Your task to perform on an android device: change timer sound Image 0: 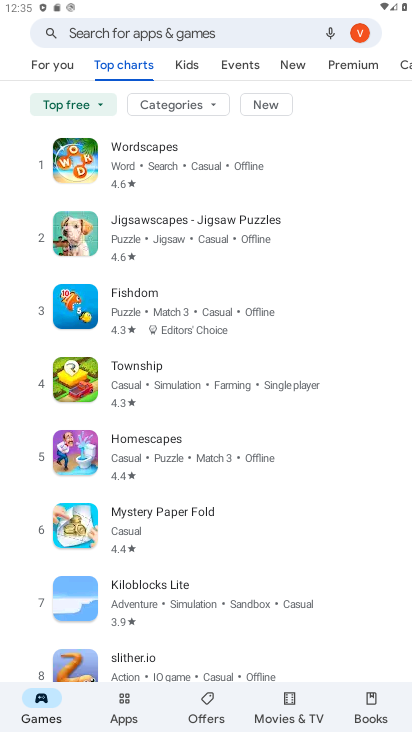
Step 0: press home button
Your task to perform on an android device: change timer sound Image 1: 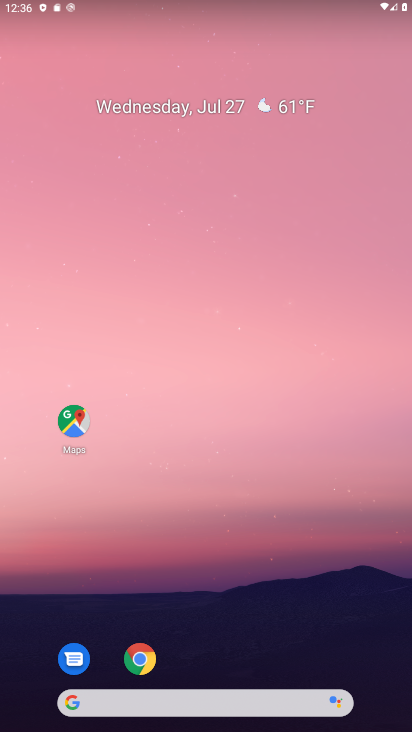
Step 1: drag from (212, 640) to (264, 107)
Your task to perform on an android device: change timer sound Image 2: 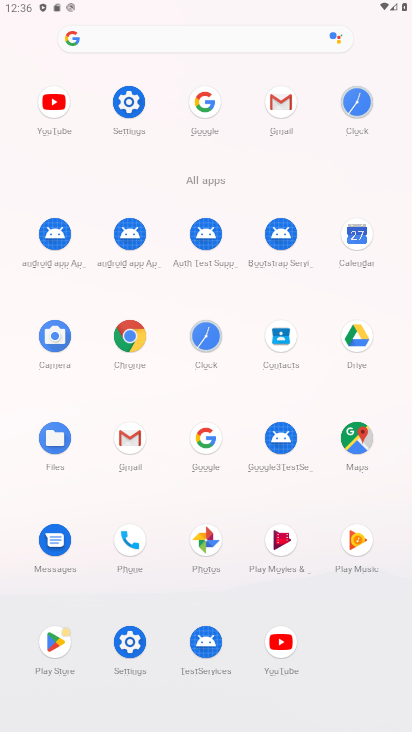
Step 2: click (375, 123)
Your task to perform on an android device: change timer sound Image 3: 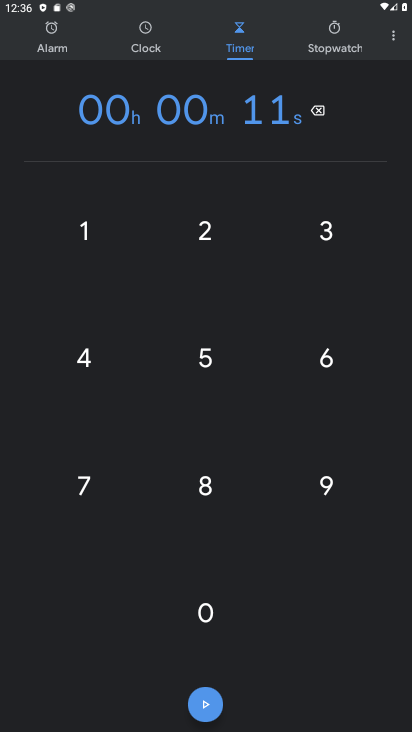
Step 3: click (395, 27)
Your task to perform on an android device: change timer sound Image 4: 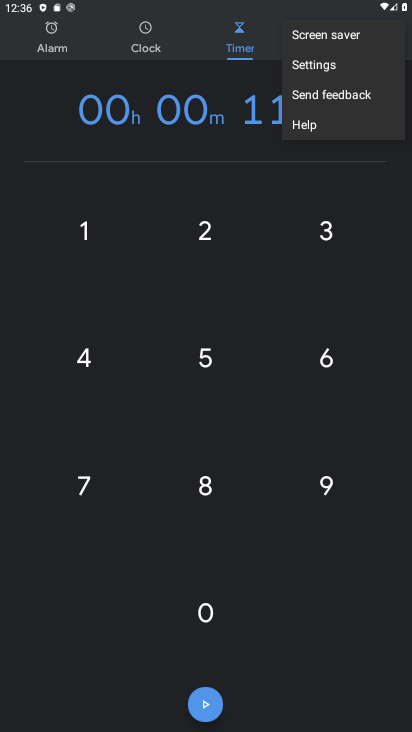
Step 4: click (307, 64)
Your task to perform on an android device: change timer sound Image 5: 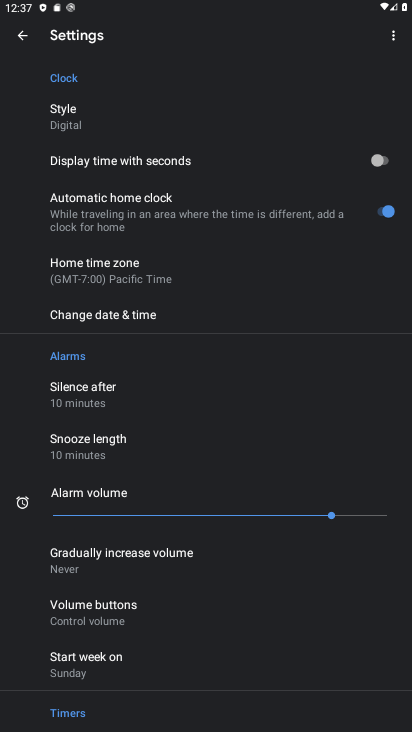
Step 5: drag from (161, 504) to (230, 164)
Your task to perform on an android device: change timer sound Image 6: 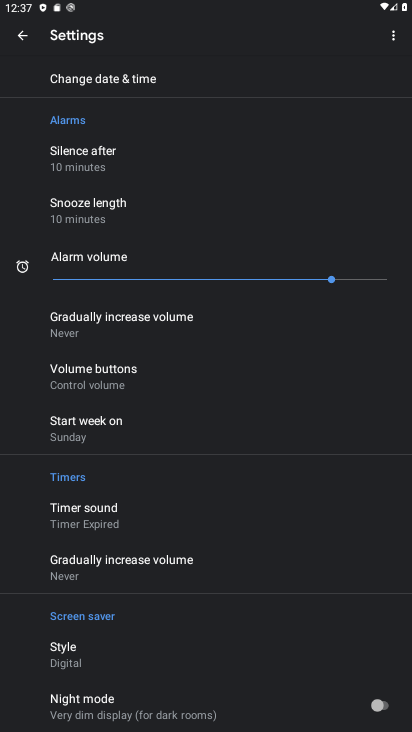
Step 6: click (135, 503)
Your task to perform on an android device: change timer sound Image 7: 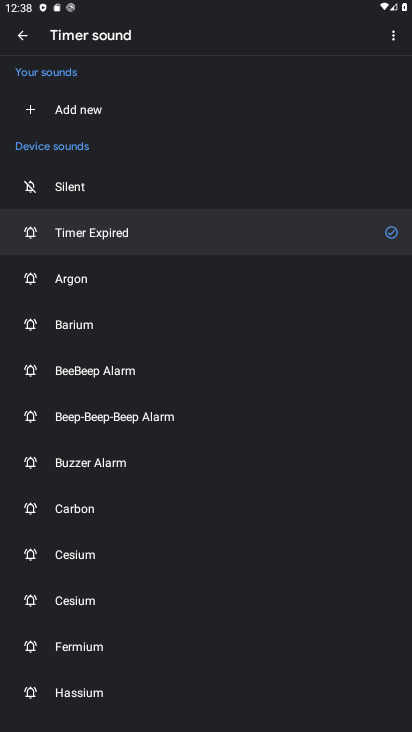
Step 7: click (120, 415)
Your task to perform on an android device: change timer sound Image 8: 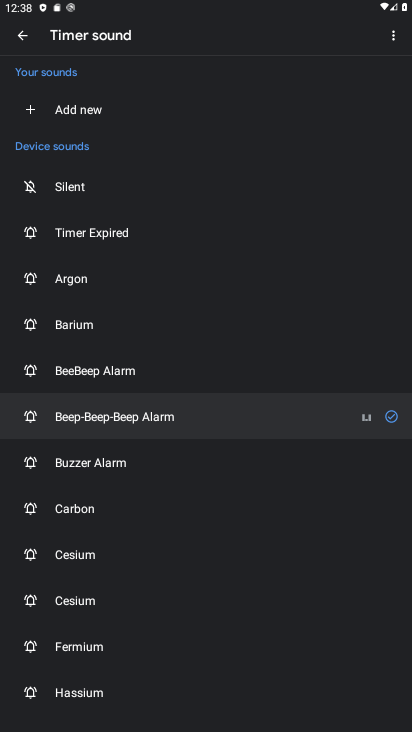
Step 8: task complete